Your task to perform on an android device: turn off javascript in the chrome app Image 0: 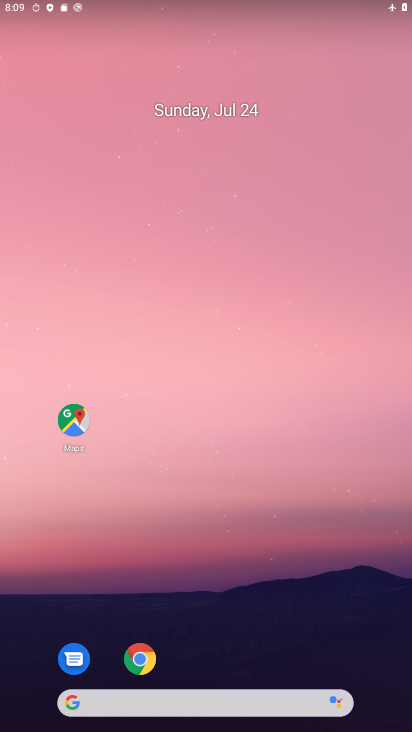
Step 0: drag from (255, 719) to (207, 331)
Your task to perform on an android device: turn off javascript in the chrome app Image 1: 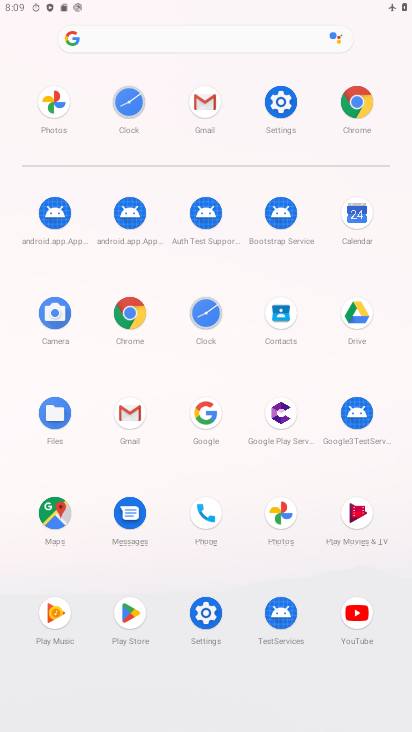
Step 1: click (357, 96)
Your task to perform on an android device: turn off javascript in the chrome app Image 2: 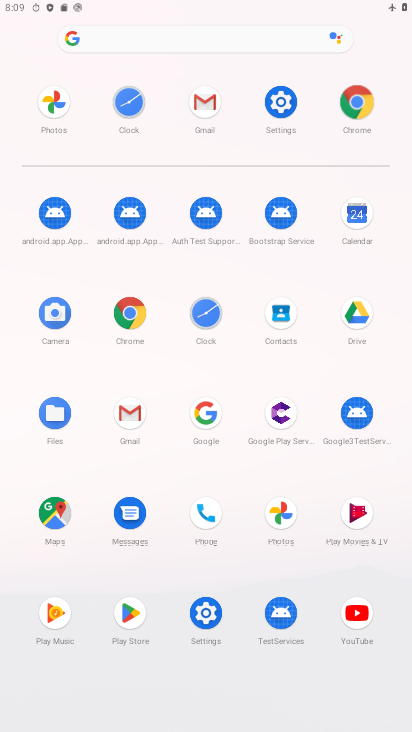
Step 2: click (360, 99)
Your task to perform on an android device: turn off javascript in the chrome app Image 3: 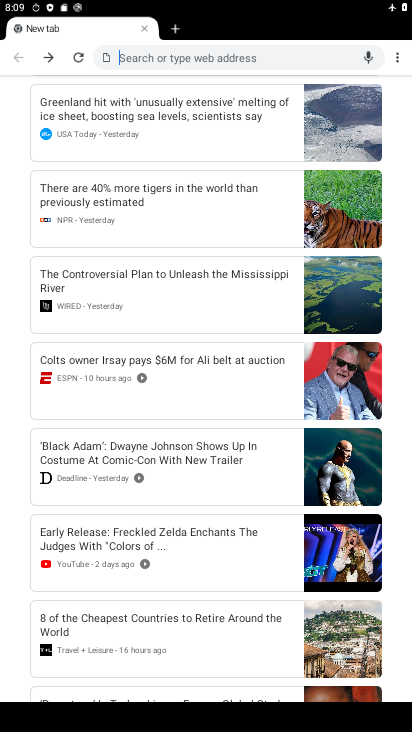
Step 3: drag from (166, 159) to (232, 511)
Your task to perform on an android device: turn off javascript in the chrome app Image 4: 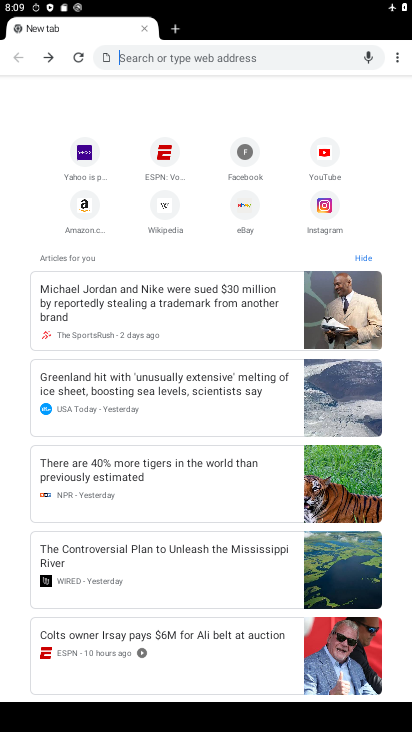
Step 4: drag from (271, 299) to (249, 583)
Your task to perform on an android device: turn off javascript in the chrome app Image 5: 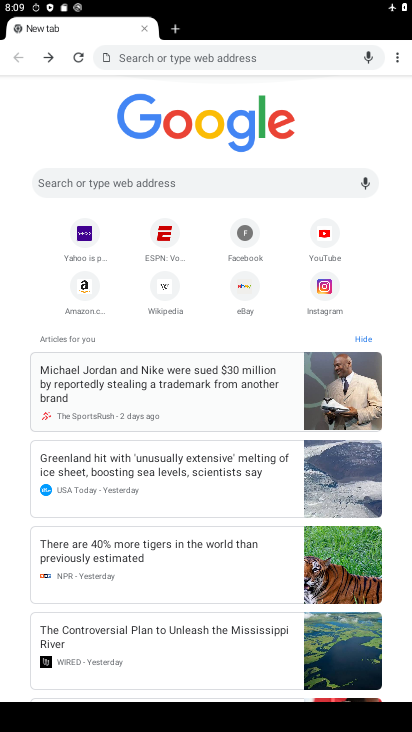
Step 5: drag from (234, 207) to (246, 449)
Your task to perform on an android device: turn off javascript in the chrome app Image 6: 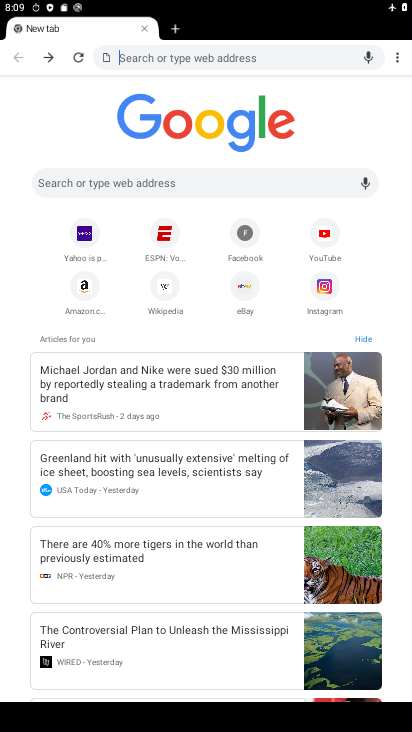
Step 6: drag from (397, 58) to (262, 258)
Your task to perform on an android device: turn off javascript in the chrome app Image 7: 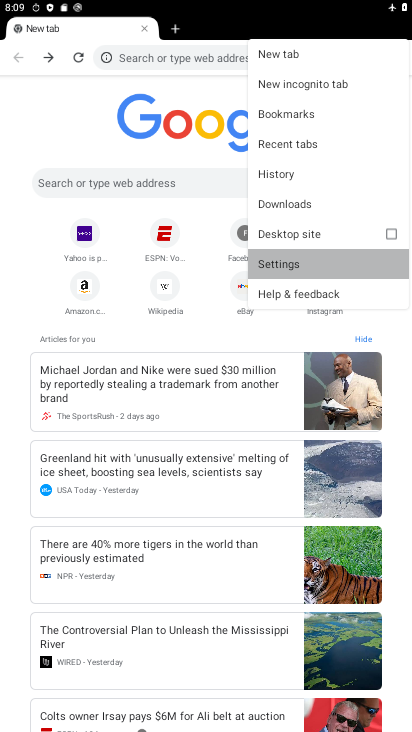
Step 7: click (261, 259)
Your task to perform on an android device: turn off javascript in the chrome app Image 8: 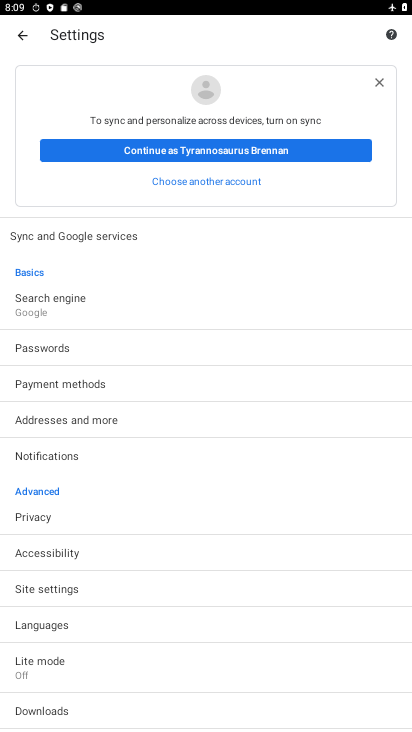
Step 8: drag from (76, 612) to (78, 298)
Your task to perform on an android device: turn off javascript in the chrome app Image 9: 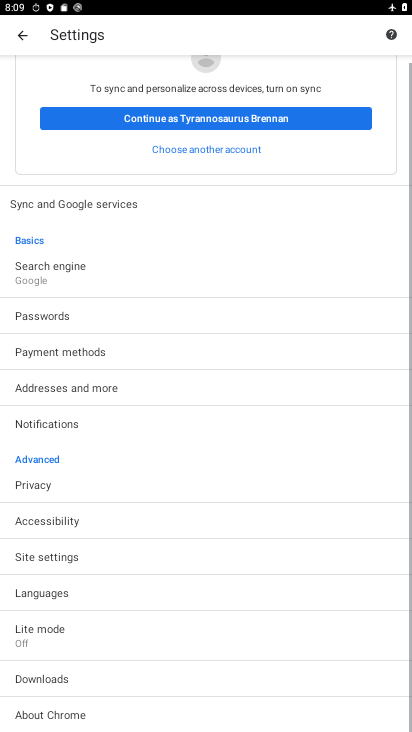
Step 9: drag from (150, 561) to (164, 335)
Your task to perform on an android device: turn off javascript in the chrome app Image 10: 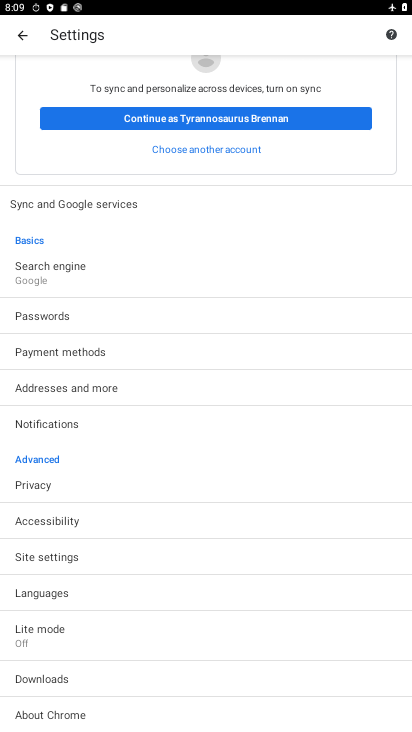
Step 10: click (39, 554)
Your task to perform on an android device: turn off javascript in the chrome app Image 11: 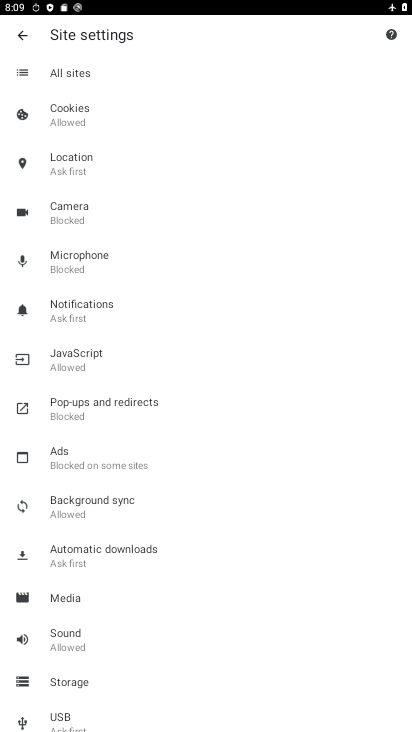
Step 11: click (69, 355)
Your task to perform on an android device: turn off javascript in the chrome app Image 12: 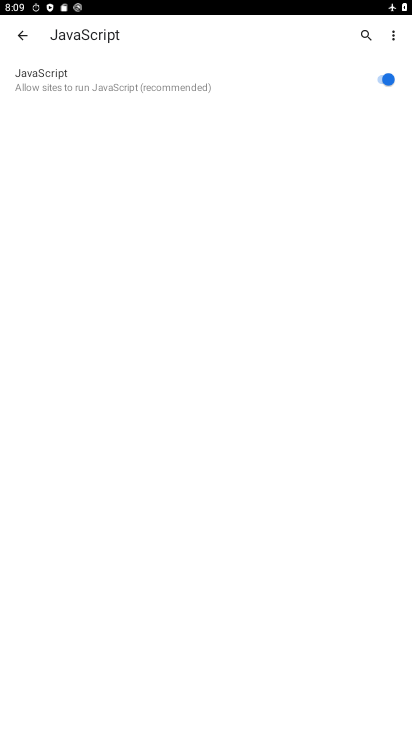
Step 12: click (390, 82)
Your task to perform on an android device: turn off javascript in the chrome app Image 13: 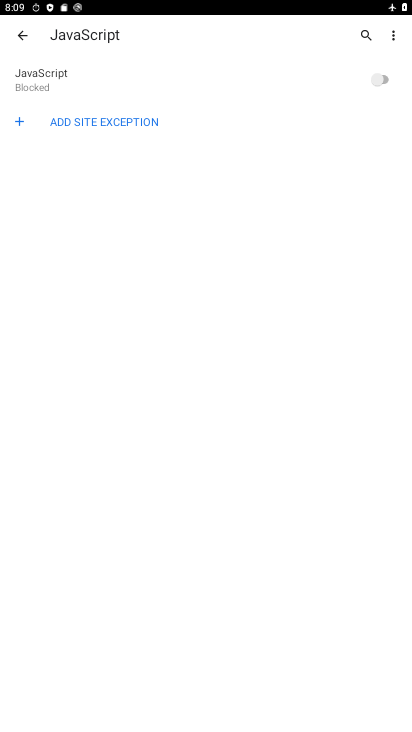
Step 13: task complete